Your task to perform on an android device: When is my next meeting? Image 0: 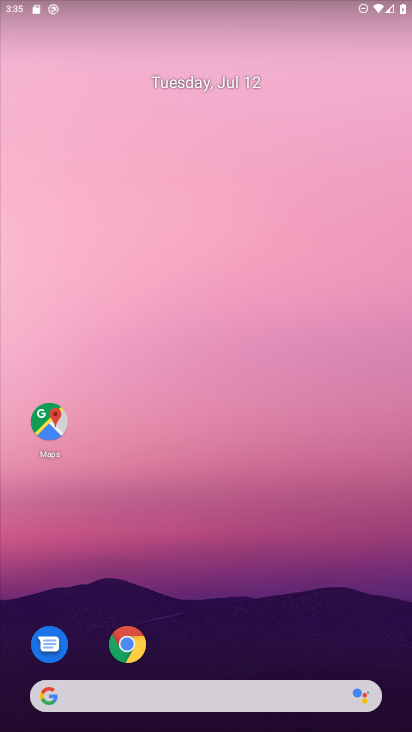
Step 0: drag from (350, 609) to (232, 150)
Your task to perform on an android device: When is my next meeting? Image 1: 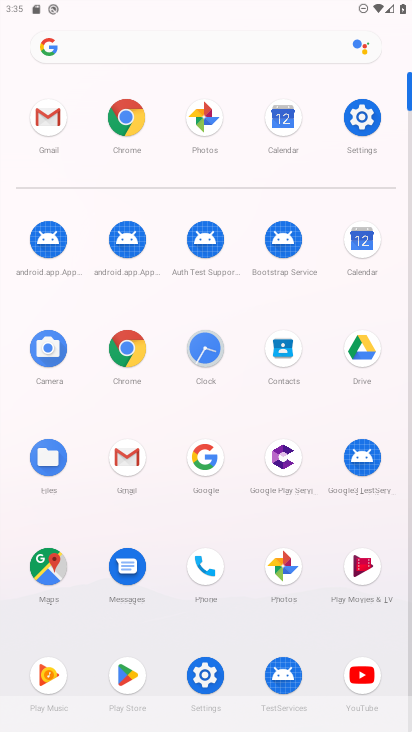
Step 1: click (365, 242)
Your task to perform on an android device: When is my next meeting? Image 2: 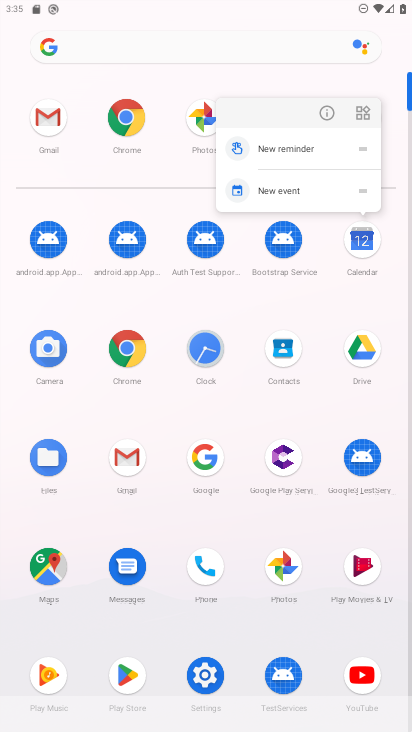
Step 2: click (365, 240)
Your task to perform on an android device: When is my next meeting? Image 3: 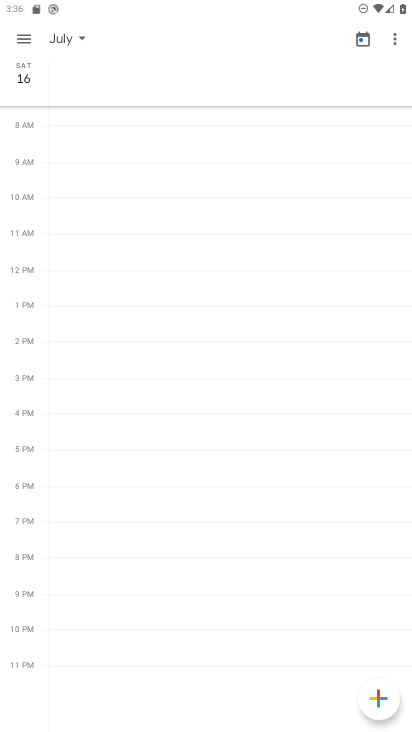
Step 3: click (67, 33)
Your task to perform on an android device: When is my next meeting? Image 4: 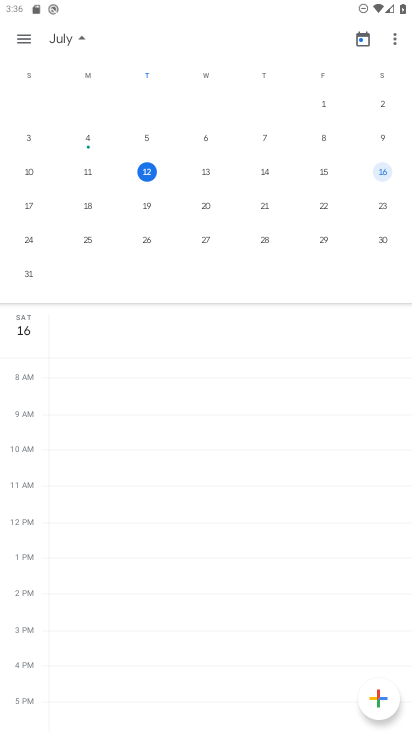
Step 4: click (147, 169)
Your task to perform on an android device: When is my next meeting? Image 5: 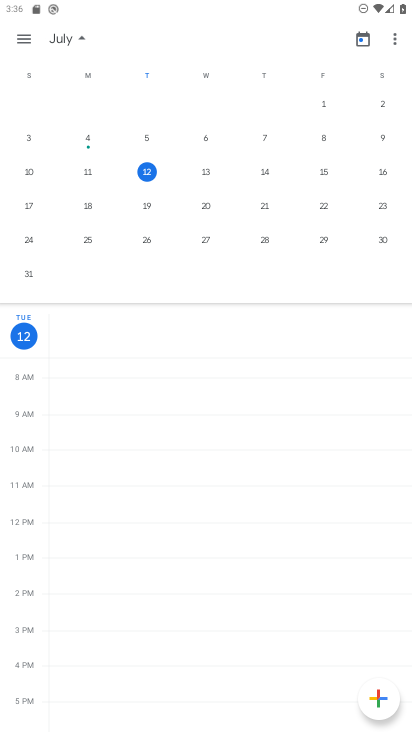
Step 5: click (19, 28)
Your task to perform on an android device: When is my next meeting? Image 6: 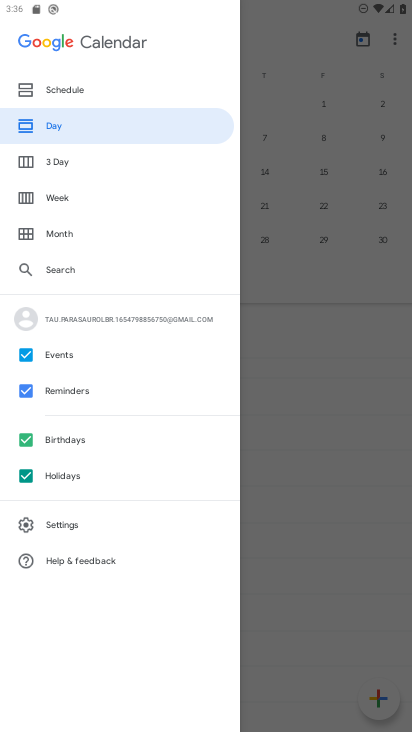
Step 6: click (57, 158)
Your task to perform on an android device: When is my next meeting? Image 7: 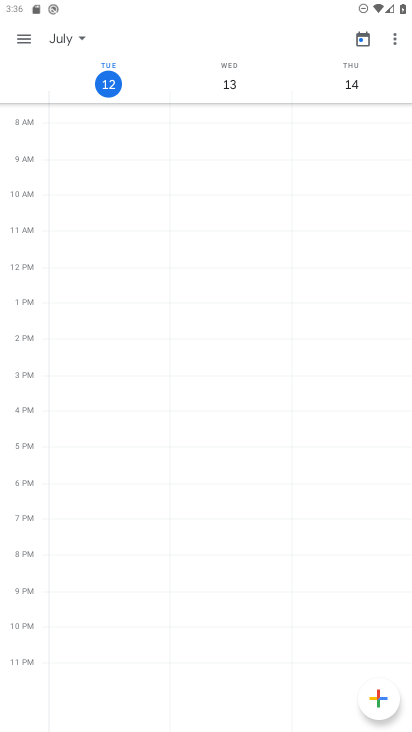
Step 7: task complete